Your task to perform on an android device: Search for Mexican restaurants on Maps Image 0: 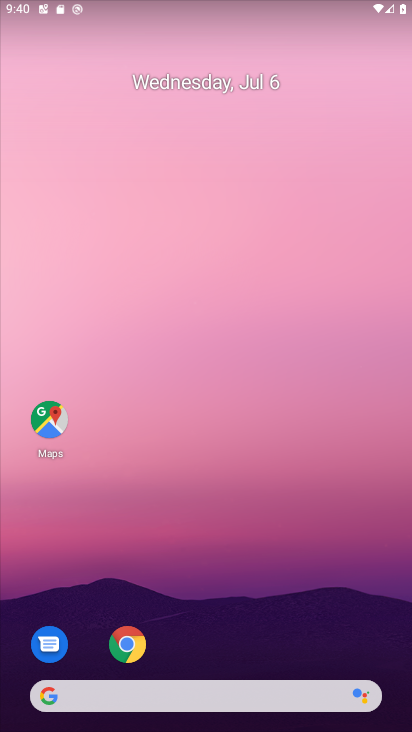
Step 0: drag from (234, 622) to (198, 151)
Your task to perform on an android device: Search for Mexican restaurants on Maps Image 1: 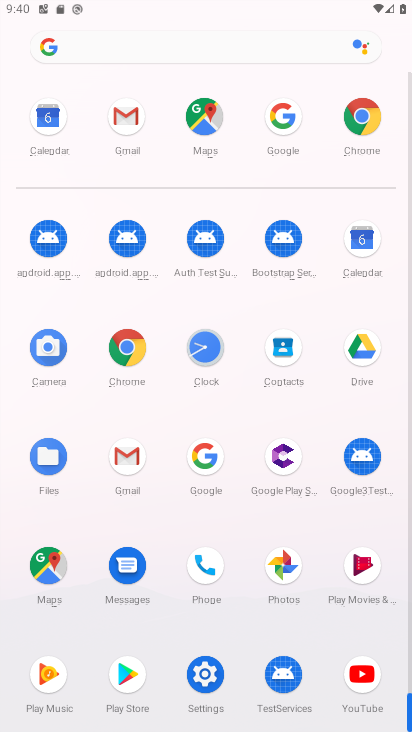
Step 1: drag from (232, 531) to (215, 230)
Your task to perform on an android device: Search for Mexican restaurants on Maps Image 2: 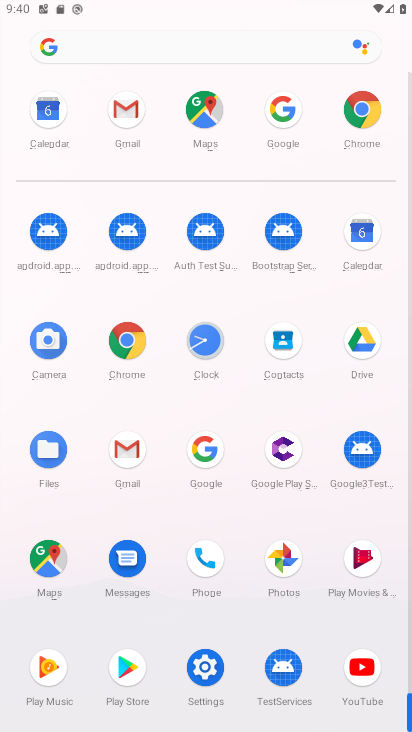
Step 2: click (51, 564)
Your task to perform on an android device: Search for Mexican restaurants on Maps Image 3: 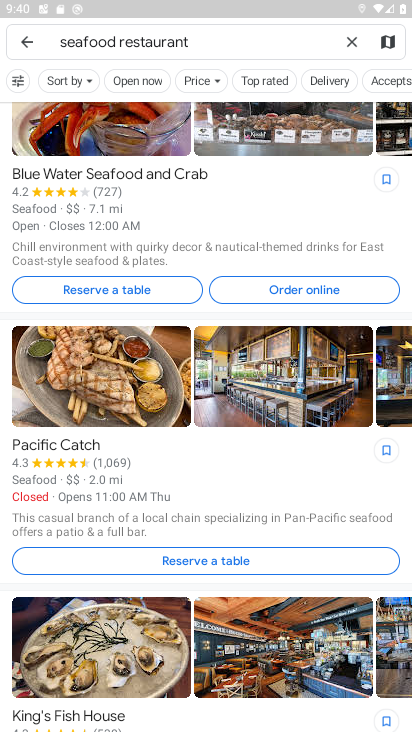
Step 3: drag from (264, 295) to (250, 573)
Your task to perform on an android device: Search for Mexican restaurants on Maps Image 4: 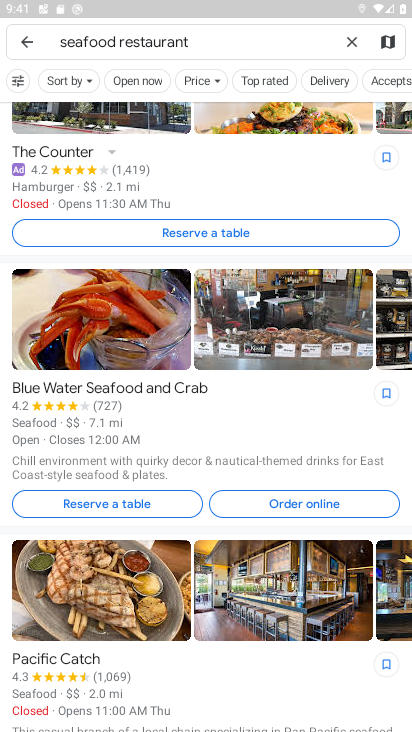
Step 4: click (354, 50)
Your task to perform on an android device: Search for Mexican restaurants on Maps Image 5: 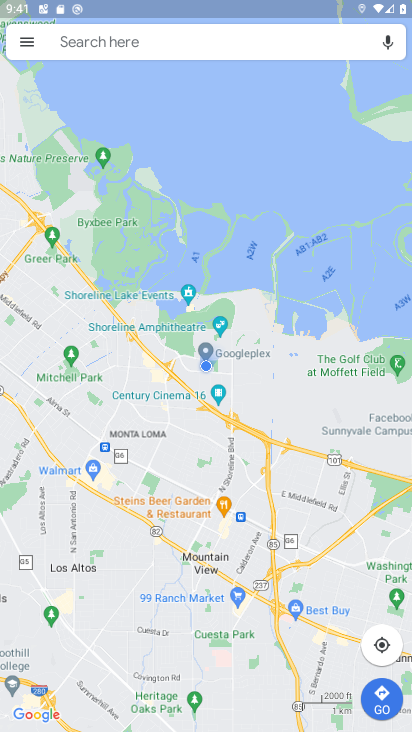
Step 5: click (293, 47)
Your task to perform on an android device: Search for Mexican restaurants on Maps Image 6: 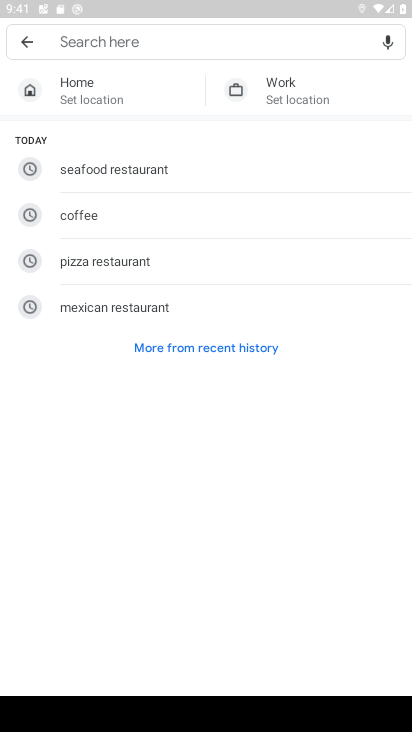
Step 6: click (161, 301)
Your task to perform on an android device: Search for Mexican restaurants on Maps Image 7: 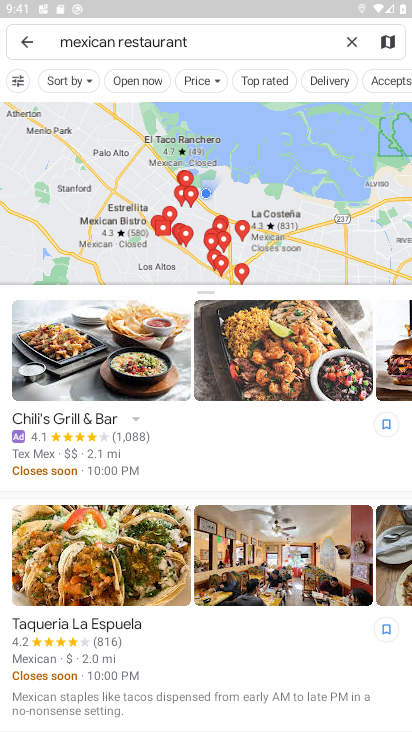
Step 7: task complete